Your task to perform on an android device: open a new tab in the chrome app Image 0: 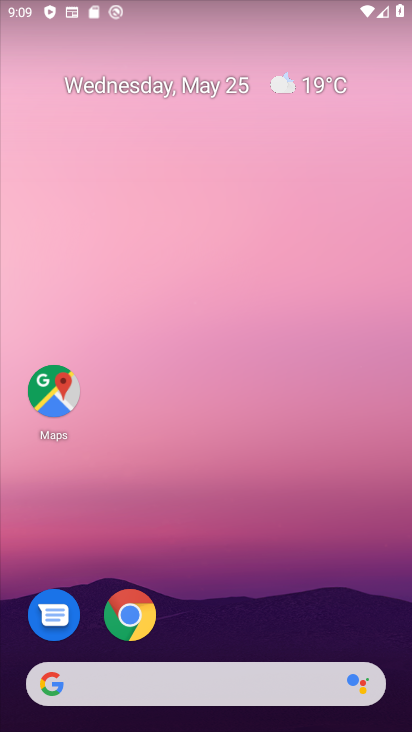
Step 0: drag from (282, 707) to (162, 199)
Your task to perform on an android device: open a new tab in the chrome app Image 1: 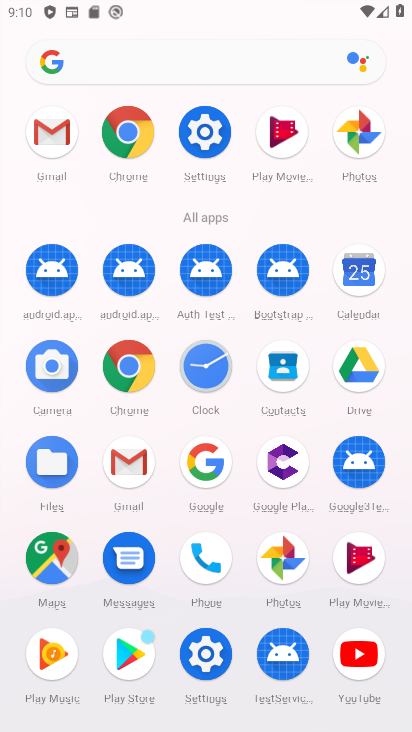
Step 1: click (121, 125)
Your task to perform on an android device: open a new tab in the chrome app Image 2: 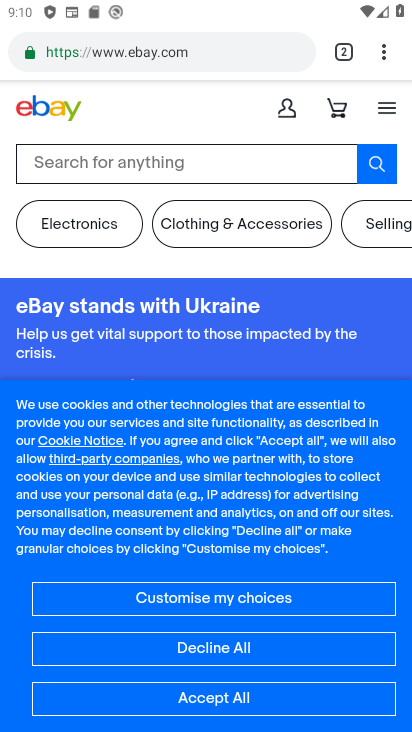
Step 2: click (382, 53)
Your task to perform on an android device: open a new tab in the chrome app Image 3: 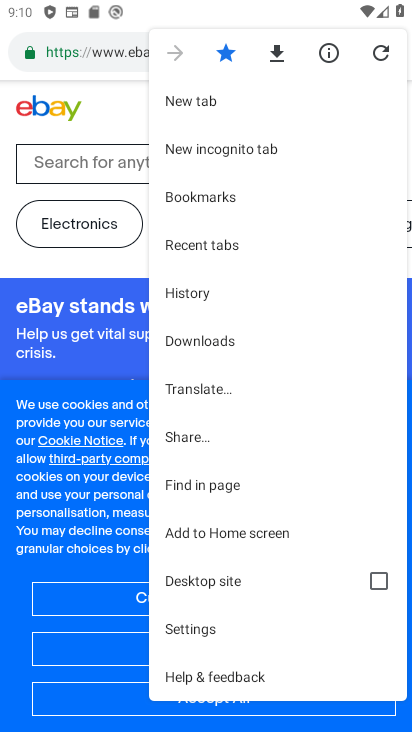
Step 3: click (217, 106)
Your task to perform on an android device: open a new tab in the chrome app Image 4: 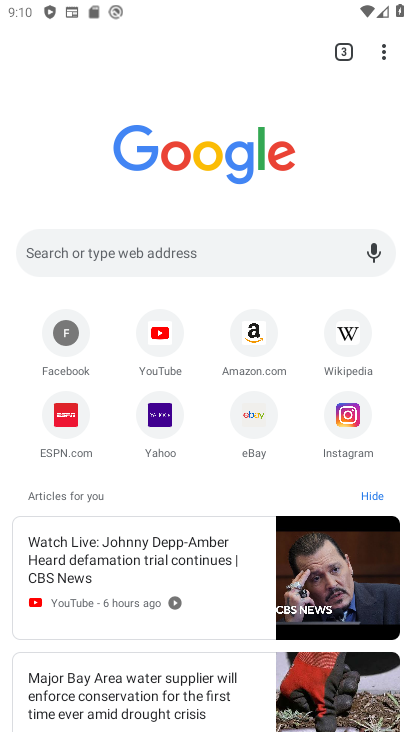
Step 4: task complete